Your task to perform on an android device: Open settings Image 0: 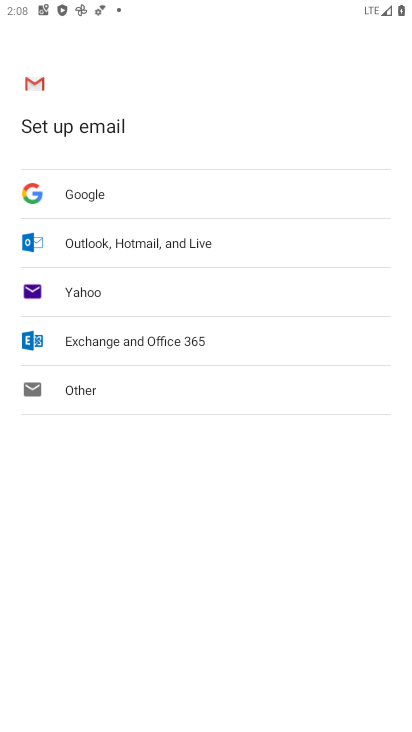
Step 0: press home button
Your task to perform on an android device: Open settings Image 1: 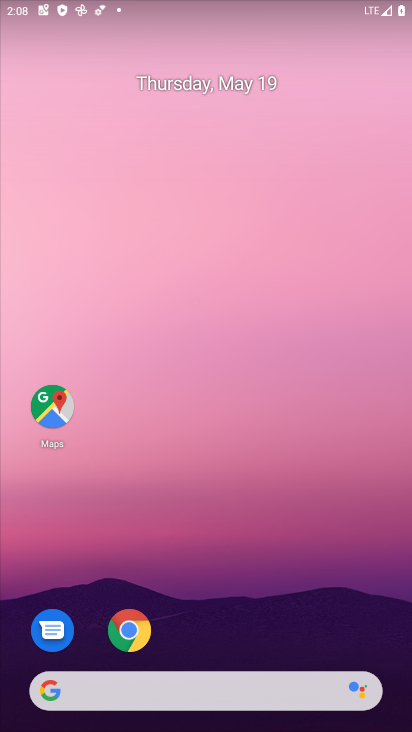
Step 1: drag from (379, 651) to (318, 27)
Your task to perform on an android device: Open settings Image 2: 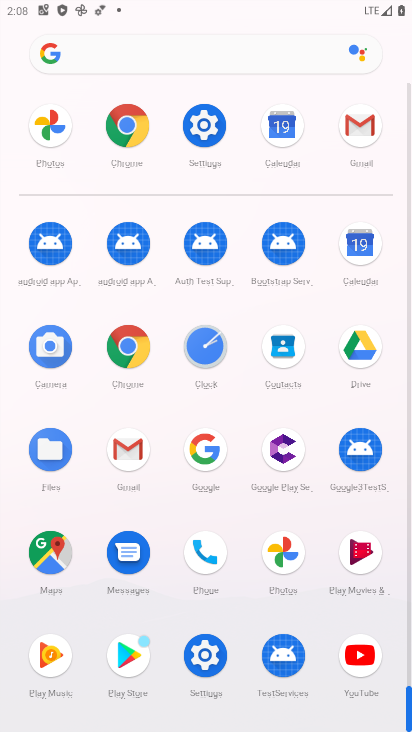
Step 2: click (205, 654)
Your task to perform on an android device: Open settings Image 3: 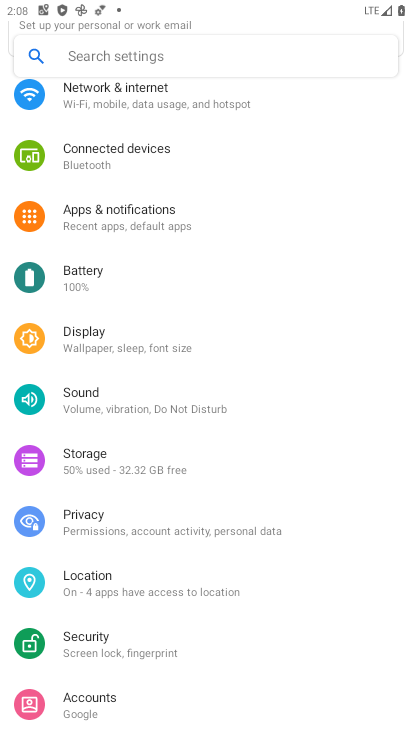
Step 3: task complete